Your task to perform on an android device: Open sound settings Image 0: 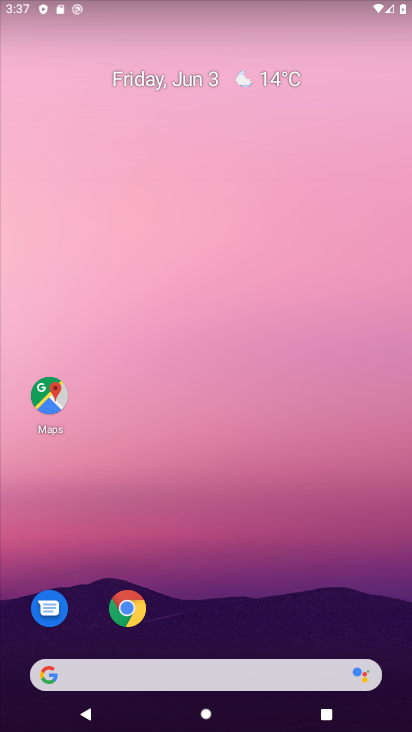
Step 0: drag from (139, 669) to (151, 297)
Your task to perform on an android device: Open sound settings Image 1: 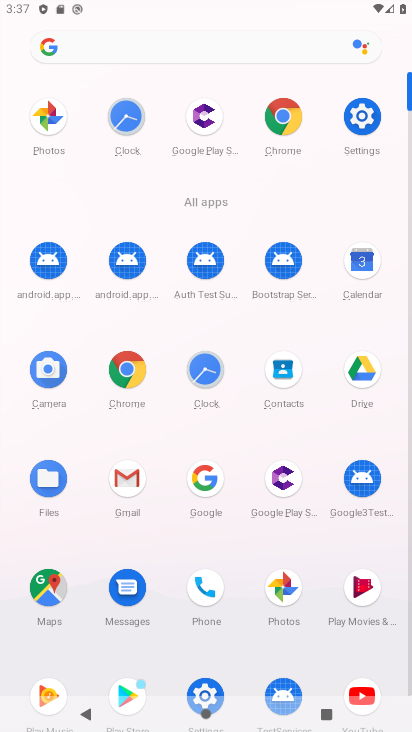
Step 1: click (366, 114)
Your task to perform on an android device: Open sound settings Image 2: 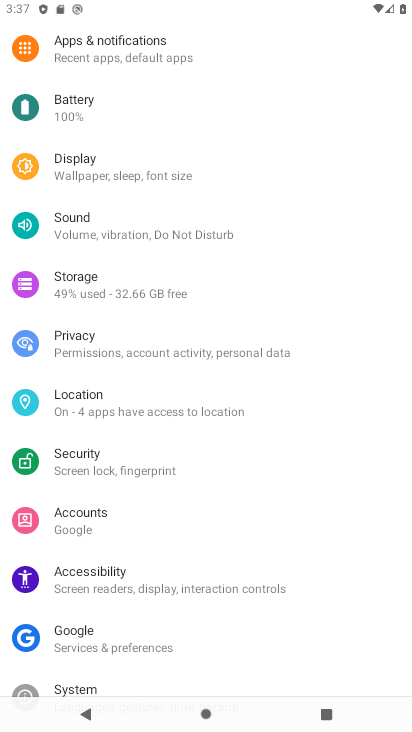
Step 2: click (96, 227)
Your task to perform on an android device: Open sound settings Image 3: 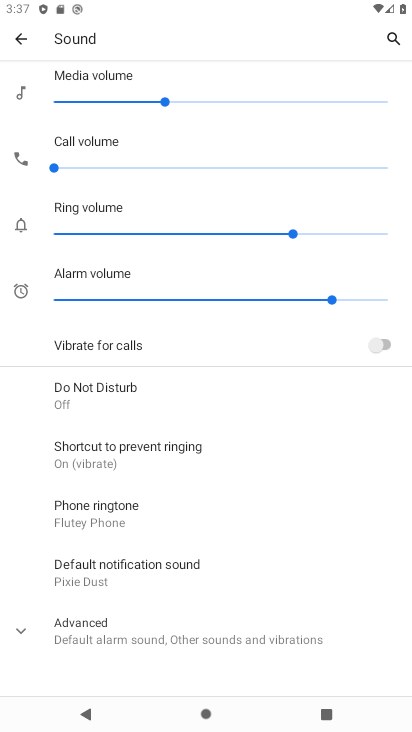
Step 3: click (96, 643)
Your task to perform on an android device: Open sound settings Image 4: 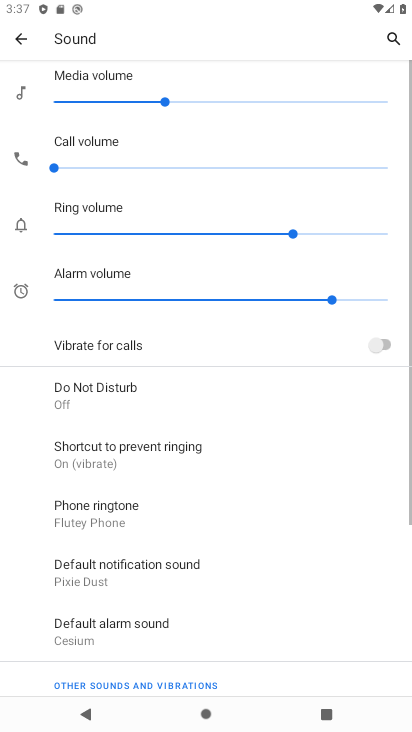
Step 4: task complete